Your task to perform on an android device: Open Android settings Image 0: 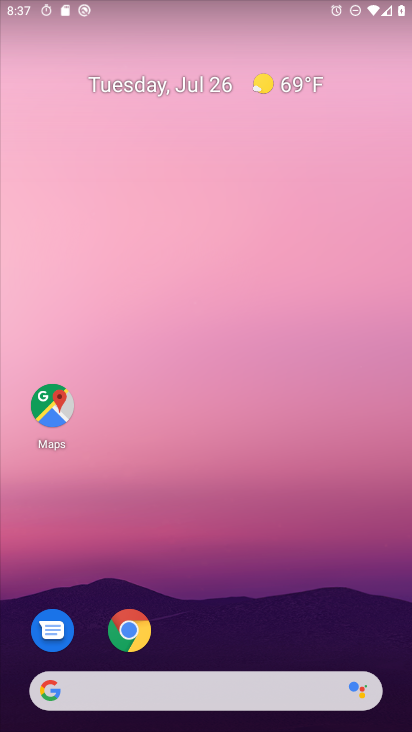
Step 0: drag from (278, 609) to (228, 222)
Your task to perform on an android device: Open Android settings Image 1: 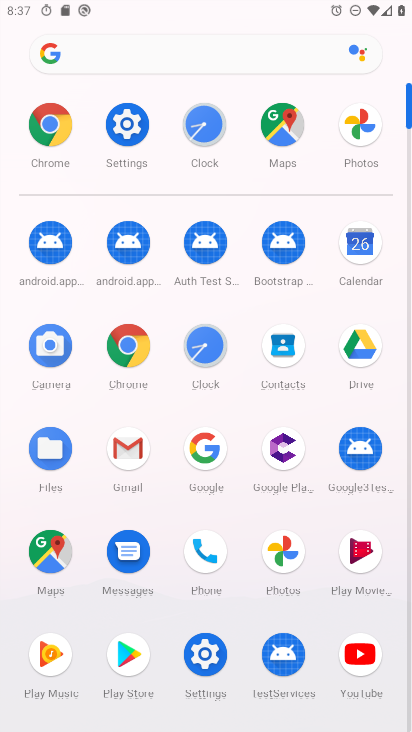
Step 1: click (214, 666)
Your task to perform on an android device: Open Android settings Image 2: 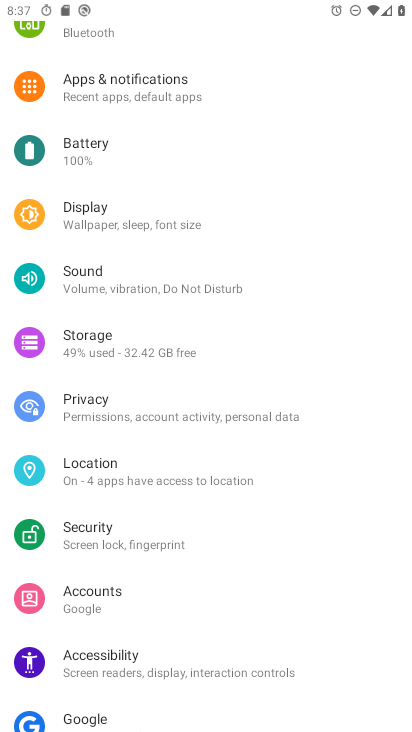
Step 2: task complete